Your task to perform on an android device: turn vacation reply on in the gmail app Image 0: 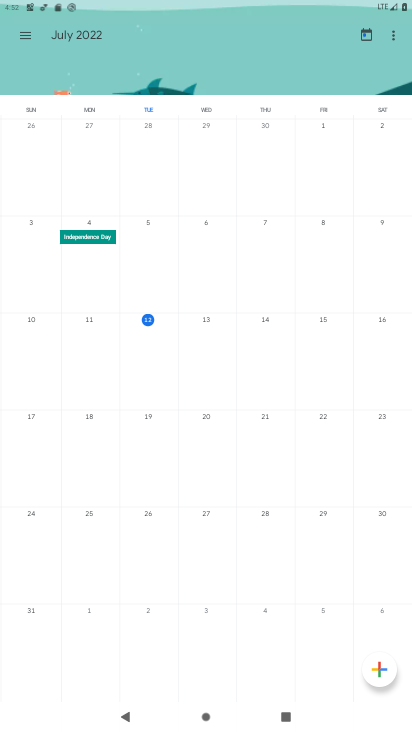
Step 0: press home button
Your task to perform on an android device: turn vacation reply on in the gmail app Image 1: 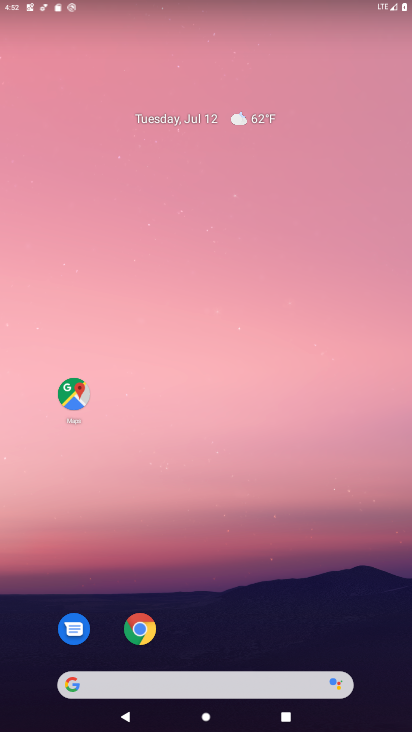
Step 1: drag from (222, 477) to (202, 5)
Your task to perform on an android device: turn vacation reply on in the gmail app Image 2: 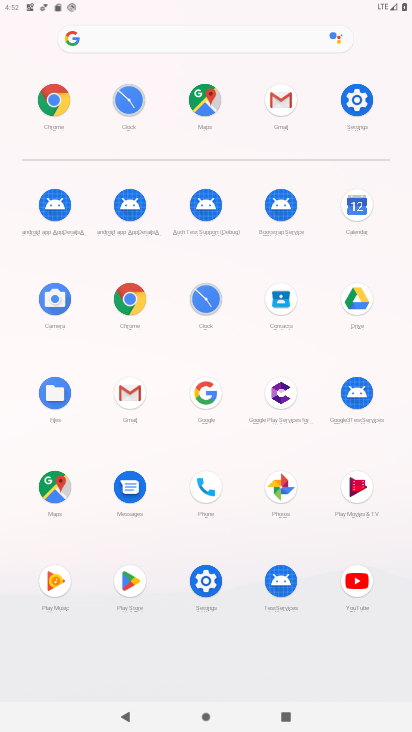
Step 2: click (280, 105)
Your task to perform on an android device: turn vacation reply on in the gmail app Image 3: 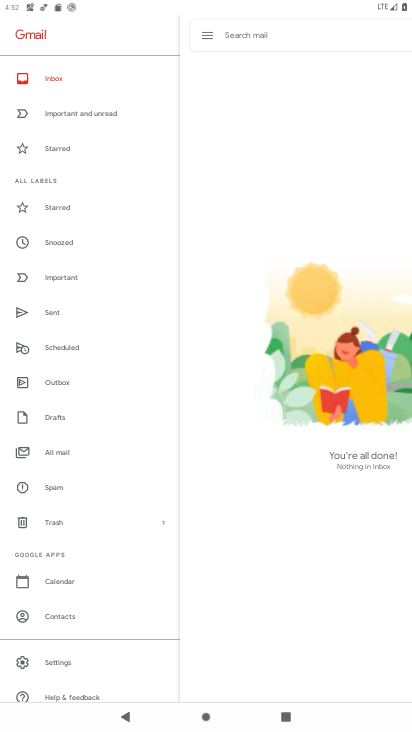
Step 3: click (51, 657)
Your task to perform on an android device: turn vacation reply on in the gmail app Image 4: 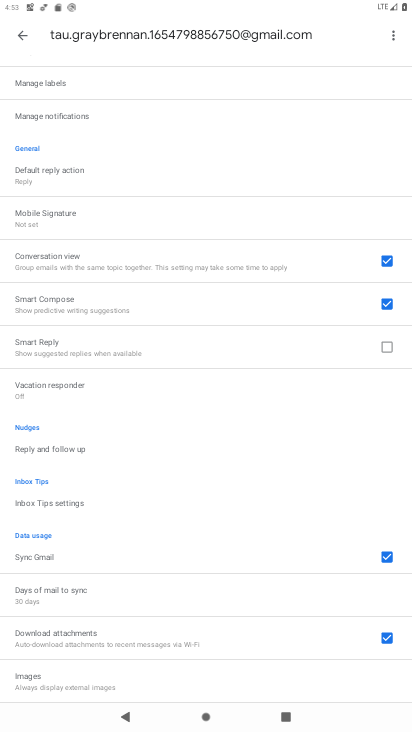
Step 4: click (29, 394)
Your task to perform on an android device: turn vacation reply on in the gmail app Image 5: 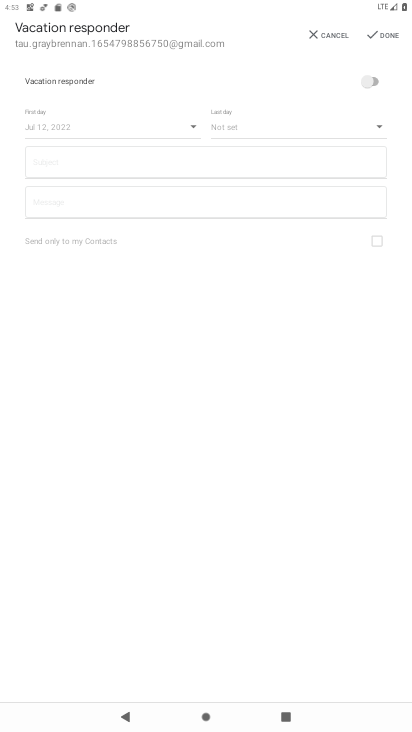
Step 5: click (384, 78)
Your task to perform on an android device: turn vacation reply on in the gmail app Image 6: 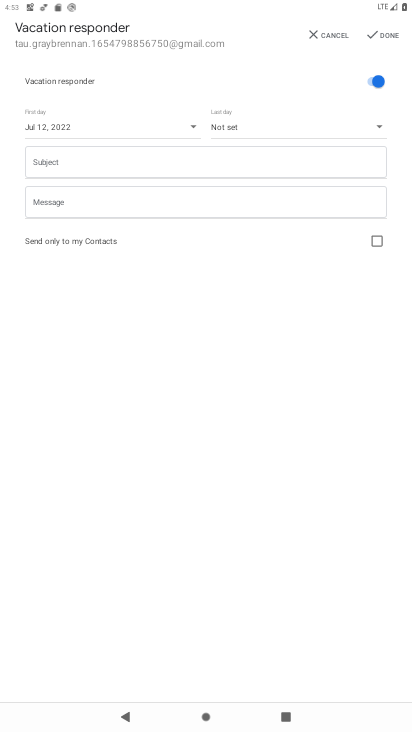
Step 6: task complete